Your task to perform on an android device: Show me the alarms in the clock app Image 0: 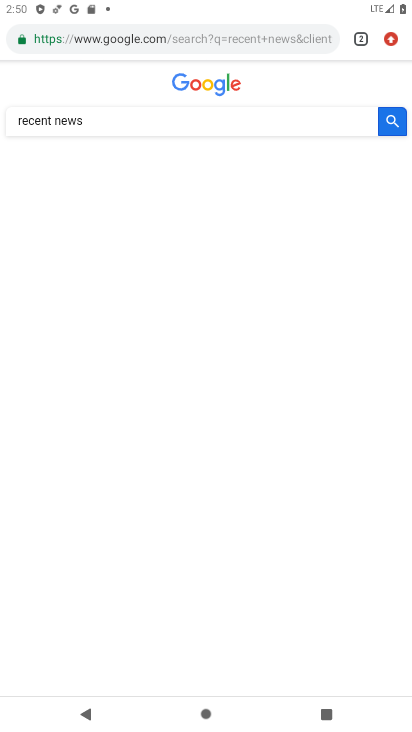
Step 0: press home button
Your task to perform on an android device: Show me the alarms in the clock app Image 1: 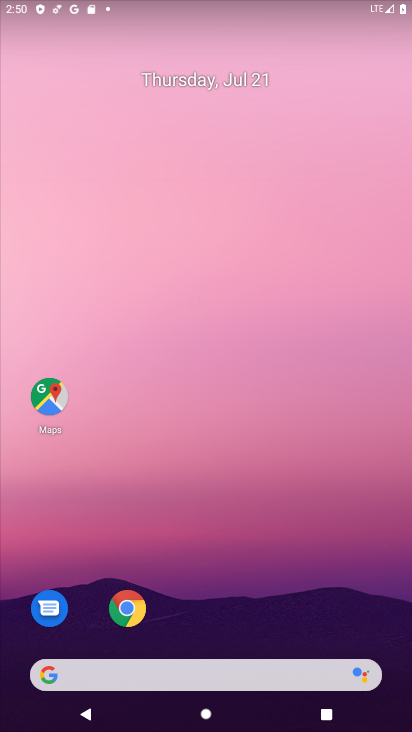
Step 1: drag from (205, 628) to (184, 58)
Your task to perform on an android device: Show me the alarms in the clock app Image 2: 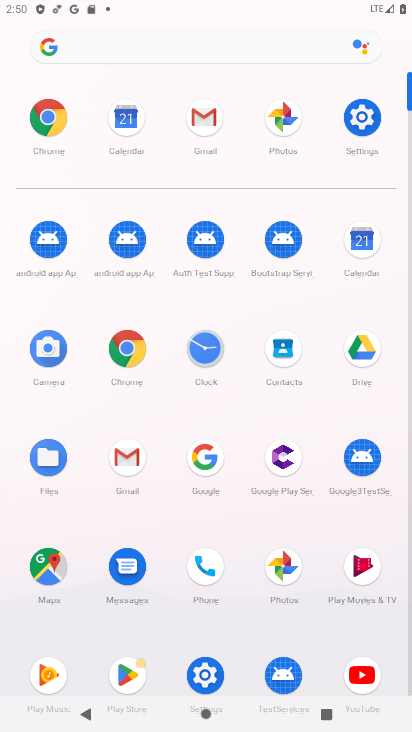
Step 2: click (210, 347)
Your task to perform on an android device: Show me the alarms in the clock app Image 3: 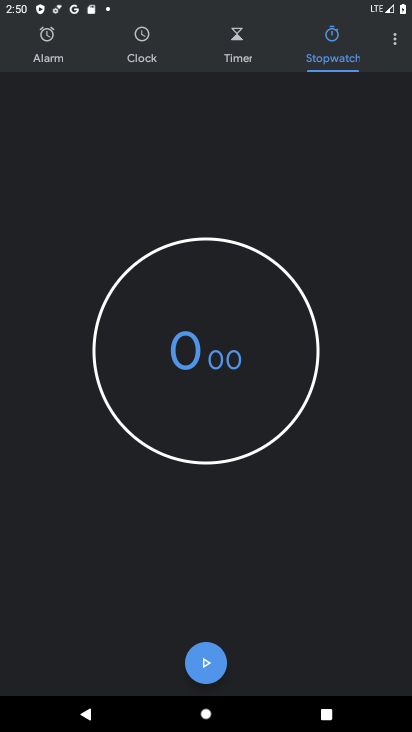
Step 3: click (53, 40)
Your task to perform on an android device: Show me the alarms in the clock app Image 4: 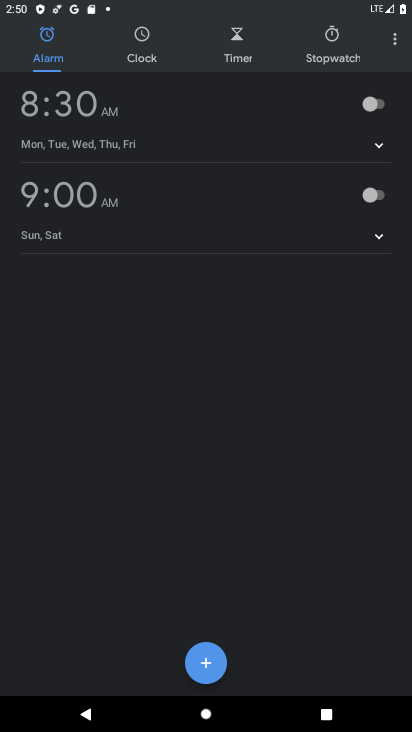
Step 4: task complete